Your task to perform on an android device: Open accessibility settings Image 0: 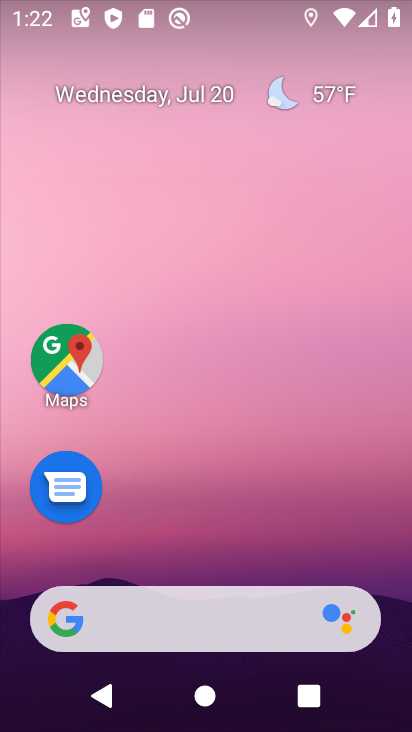
Step 0: drag from (195, 565) to (242, 13)
Your task to perform on an android device: Open accessibility settings Image 1: 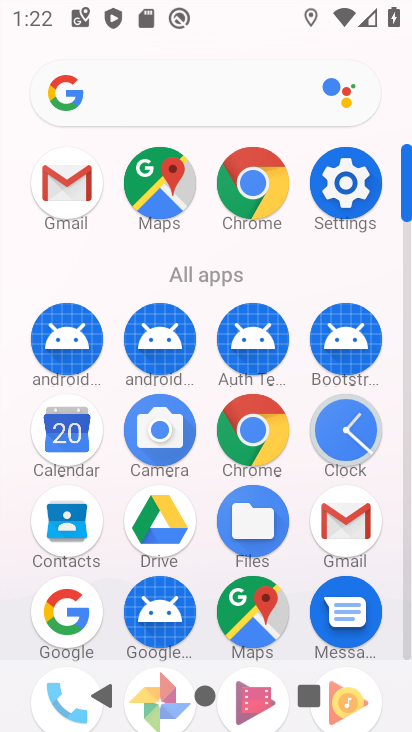
Step 1: click (350, 189)
Your task to perform on an android device: Open accessibility settings Image 2: 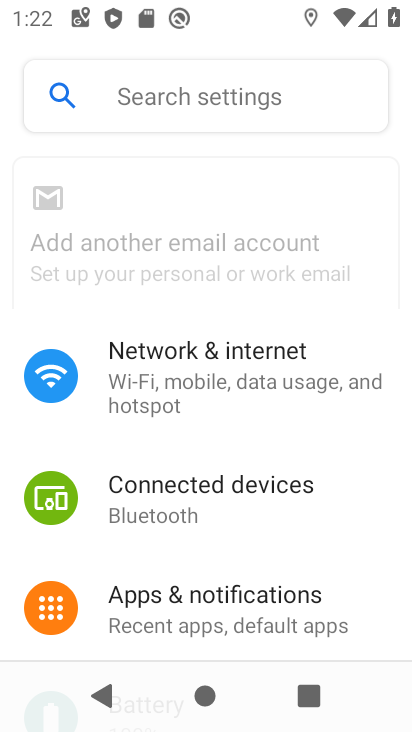
Step 2: drag from (187, 569) to (281, 3)
Your task to perform on an android device: Open accessibility settings Image 3: 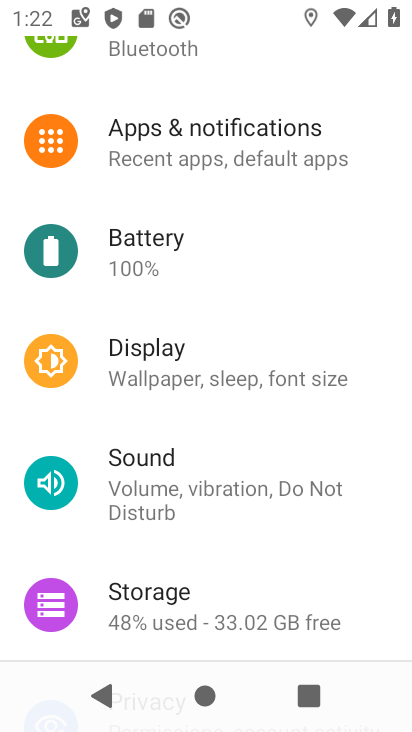
Step 3: drag from (213, 589) to (275, 29)
Your task to perform on an android device: Open accessibility settings Image 4: 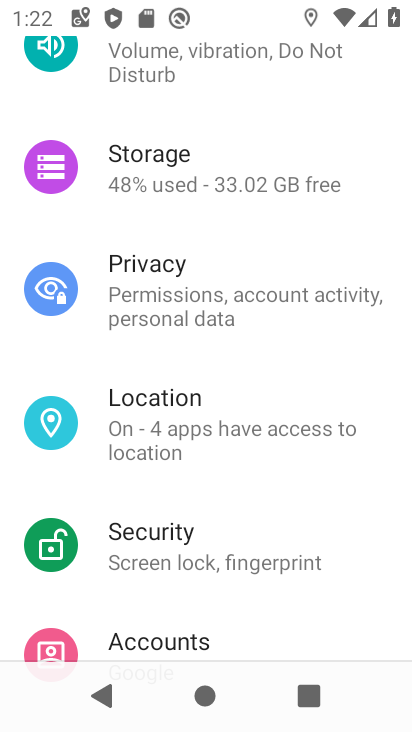
Step 4: drag from (203, 566) to (178, 63)
Your task to perform on an android device: Open accessibility settings Image 5: 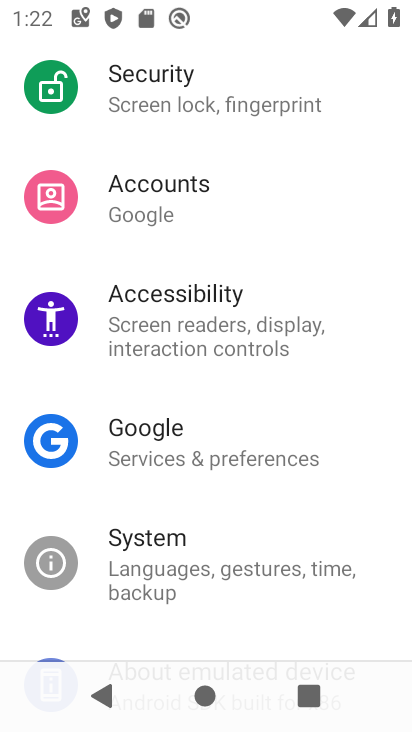
Step 5: click (138, 334)
Your task to perform on an android device: Open accessibility settings Image 6: 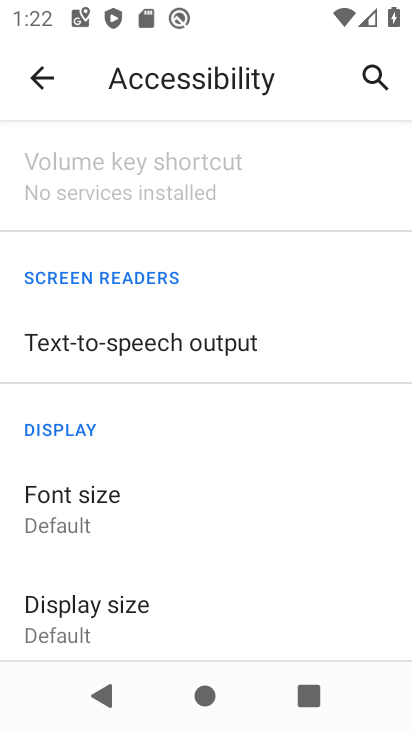
Step 6: task complete